Your task to perform on an android device: Show me popular videos on Youtube Image 0: 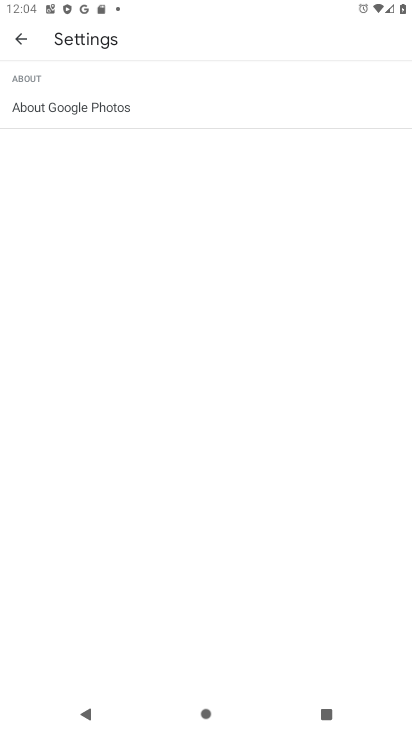
Step 0: press home button
Your task to perform on an android device: Show me popular videos on Youtube Image 1: 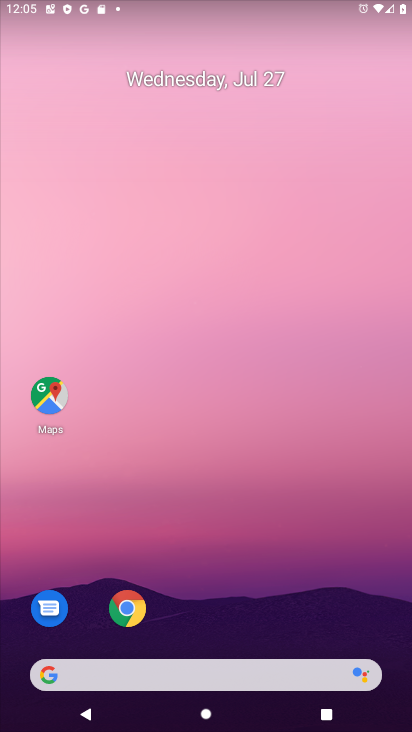
Step 1: drag from (215, 677) to (277, 18)
Your task to perform on an android device: Show me popular videos on Youtube Image 2: 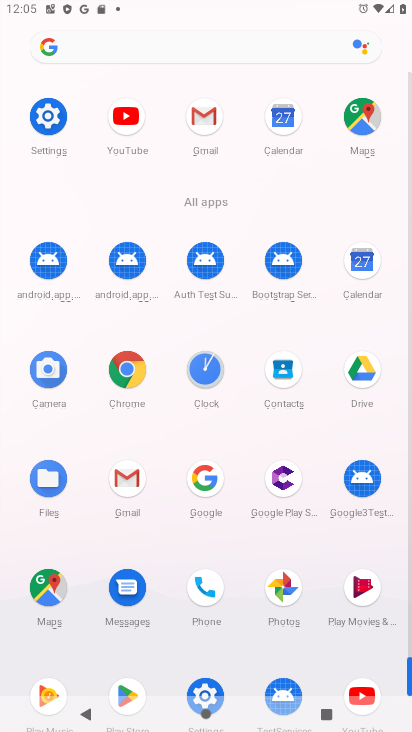
Step 2: click (125, 117)
Your task to perform on an android device: Show me popular videos on Youtube Image 3: 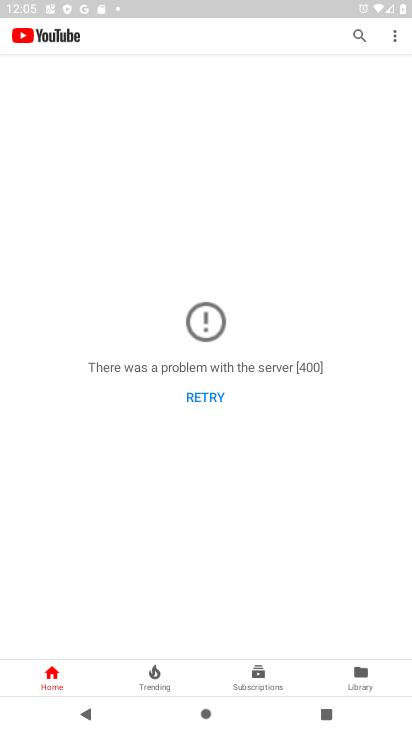
Step 3: click (362, 678)
Your task to perform on an android device: Show me popular videos on Youtube Image 4: 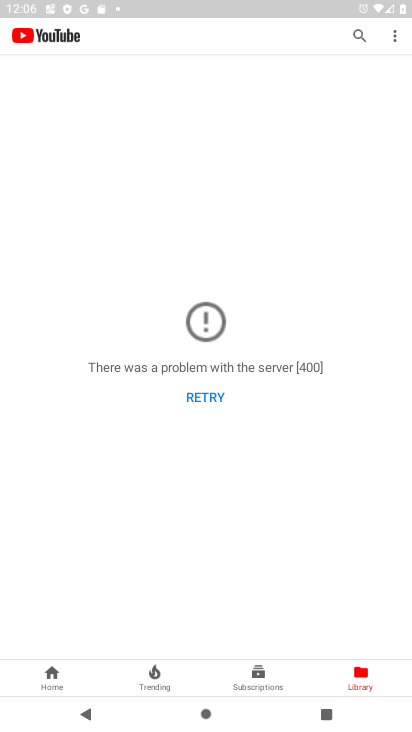
Step 4: task complete